Your task to perform on an android device: open app "Google Find My Device" Image 0: 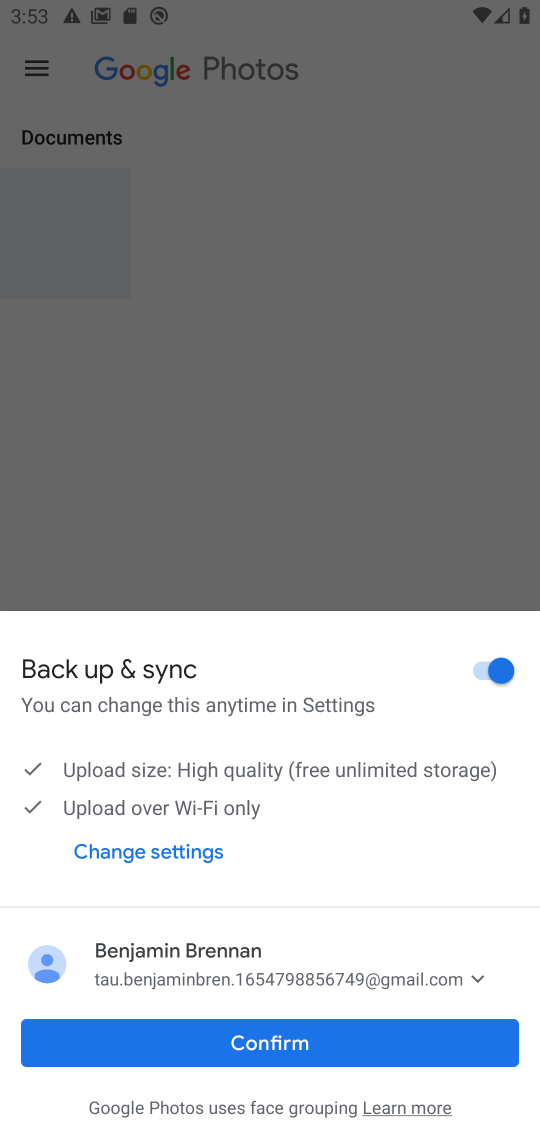
Step 0: press home button
Your task to perform on an android device: open app "Google Find My Device" Image 1: 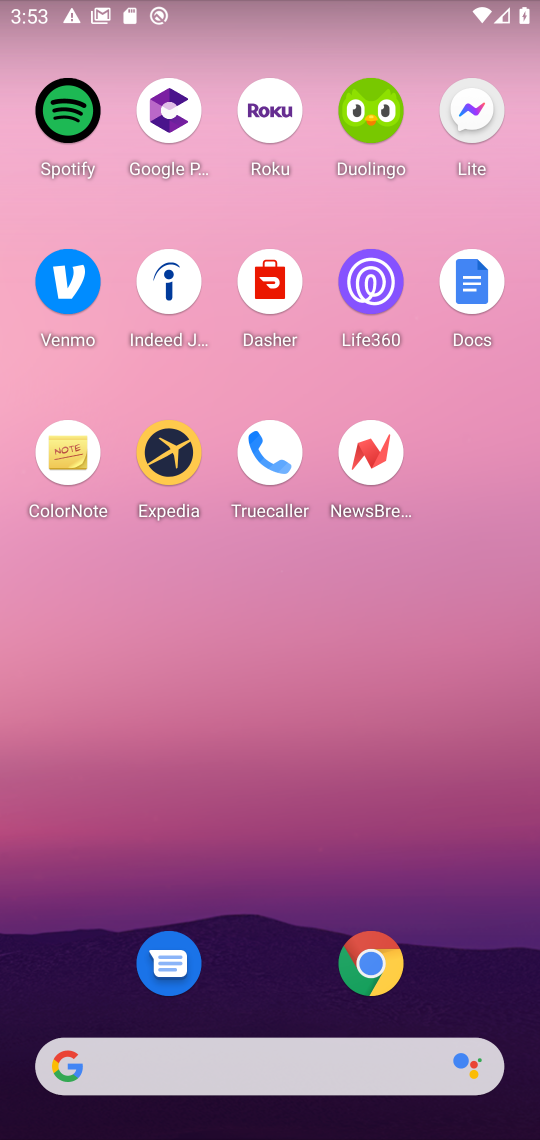
Step 1: drag from (269, 1005) to (16, 315)
Your task to perform on an android device: open app "Google Find My Device" Image 2: 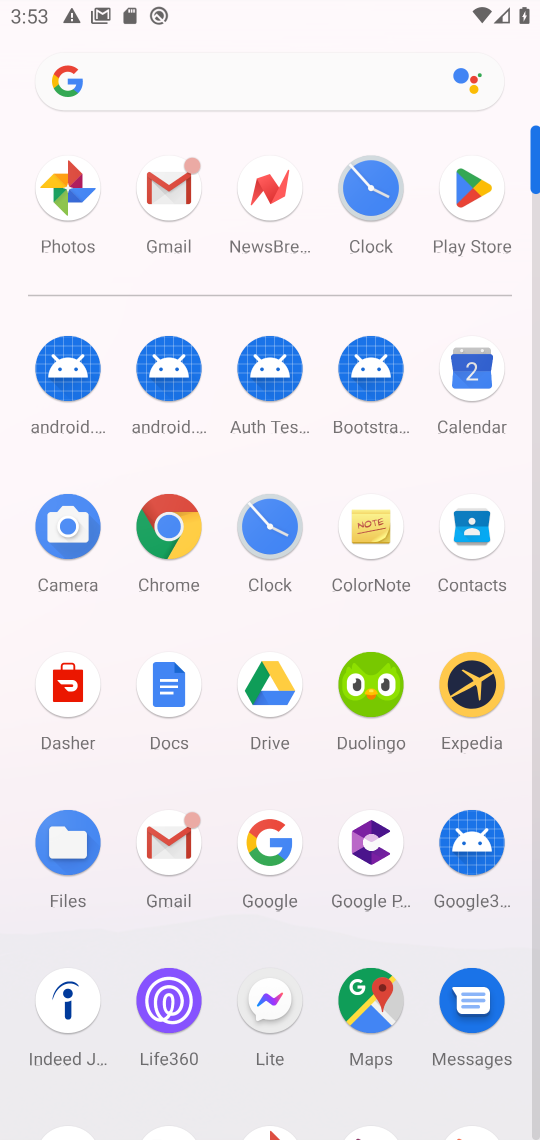
Step 2: click (469, 206)
Your task to perform on an android device: open app "Google Find My Device" Image 3: 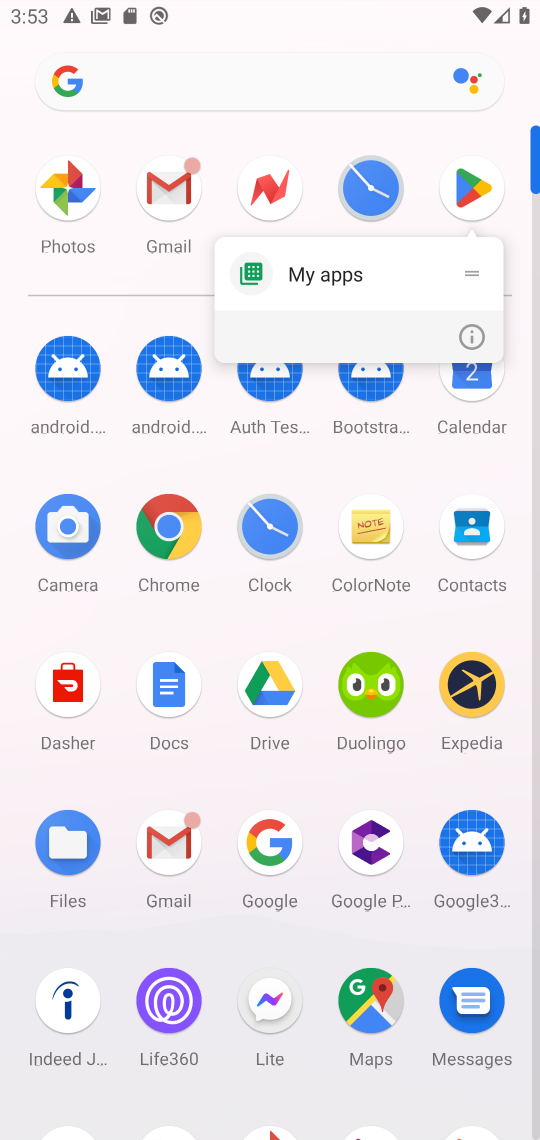
Step 3: click (466, 205)
Your task to perform on an android device: open app "Google Find My Device" Image 4: 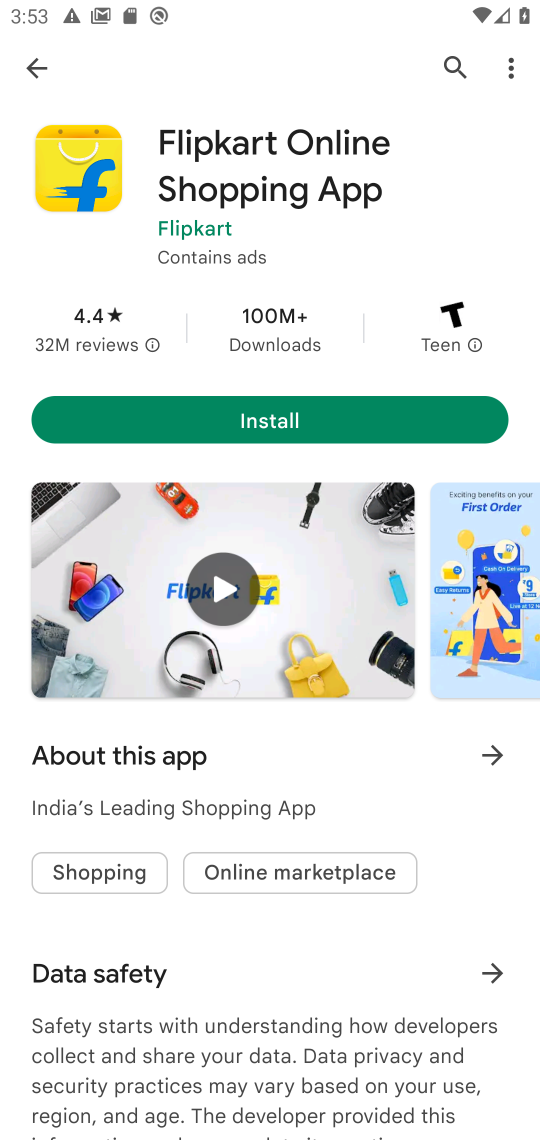
Step 4: click (28, 86)
Your task to perform on an android device: open app "Google Find My Device" Image 5: 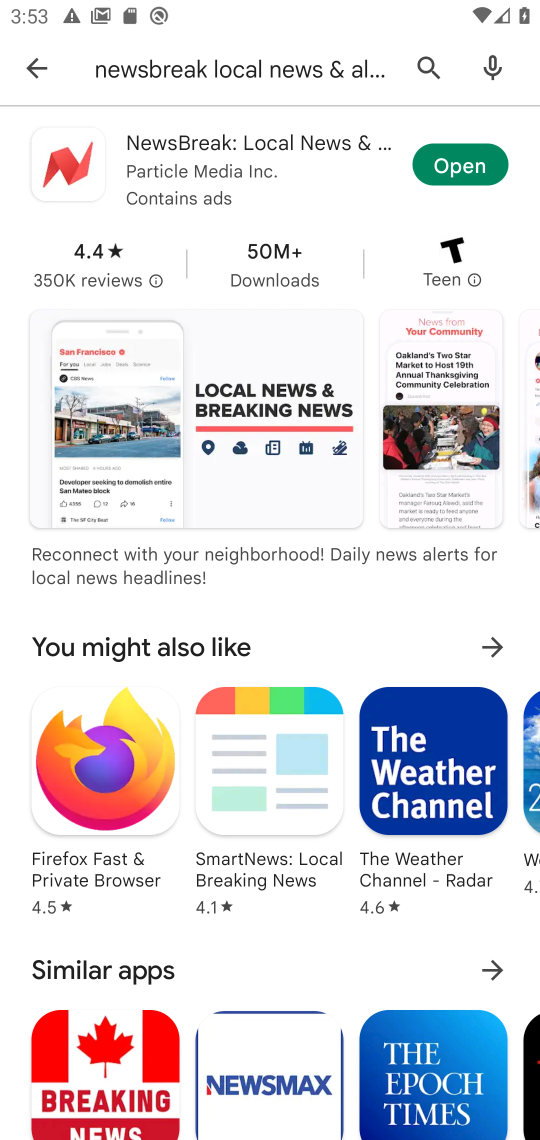
Step 5: click (425, 63)
Your task to perform on an android device: open app "Google Find My Device" Image 6: 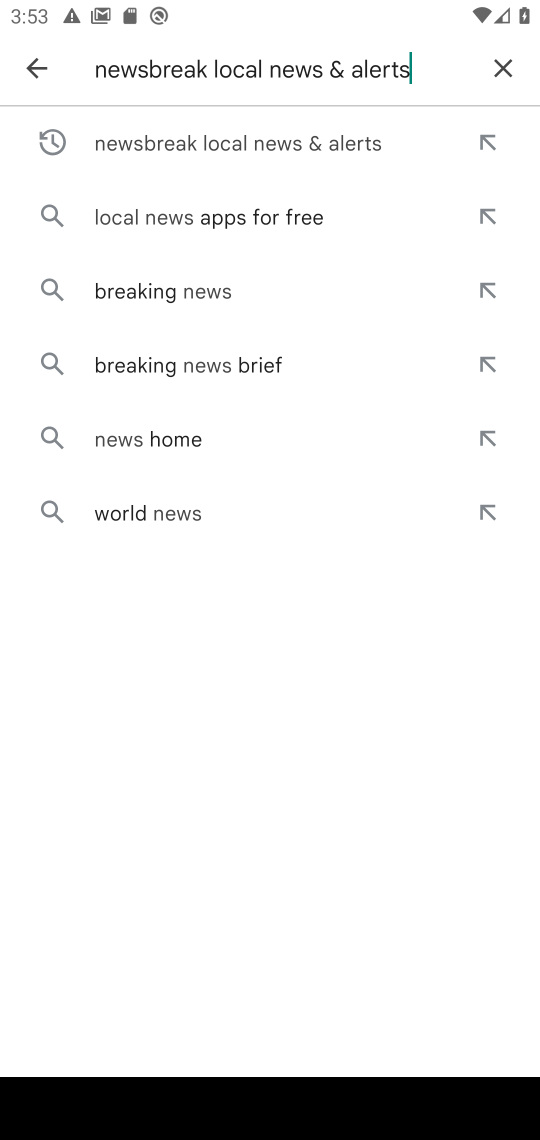
Step 6: click (495, 66)
Your task to perform on an android device: open app "Google Find My Device" Image 7: 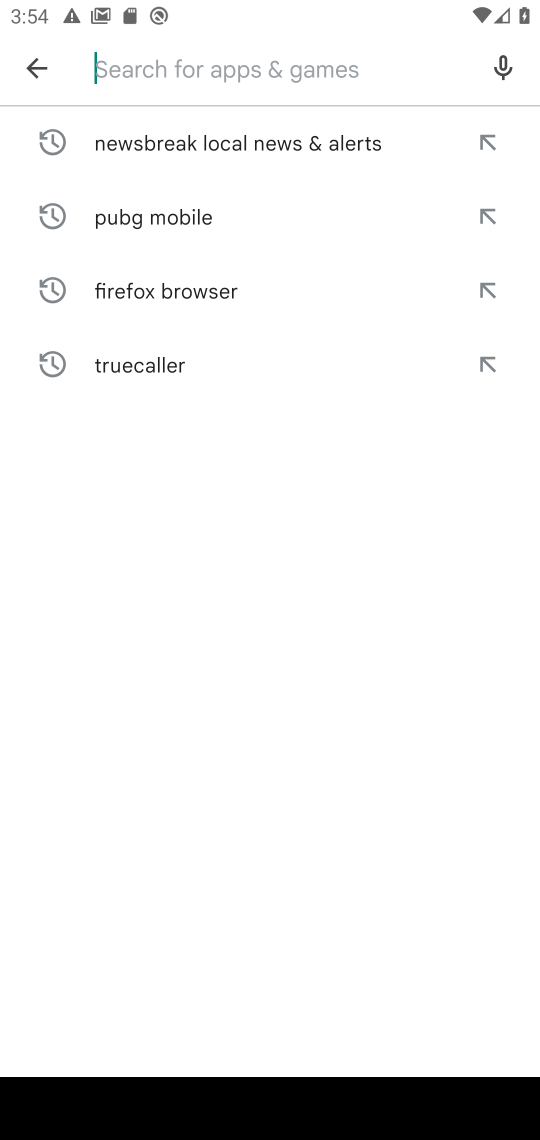
Step 7: type "Google Find My Device"
Your task to perform on an android device: open app "Google Find My Device" Image 8: 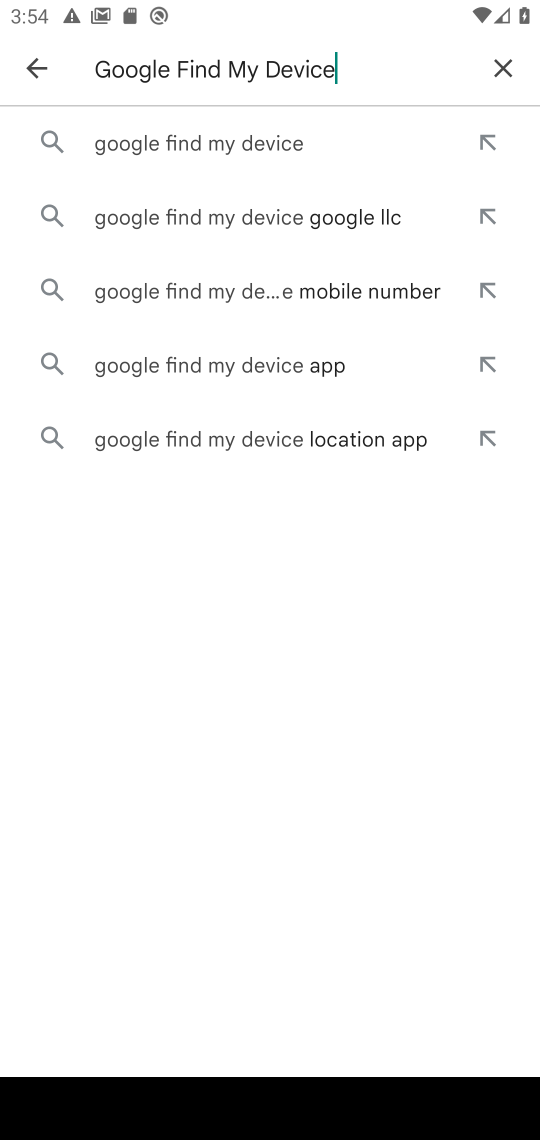
Step 8: click (159, 143)
Your task to perform on an android device: open app "Google Find My Device" Image 9: 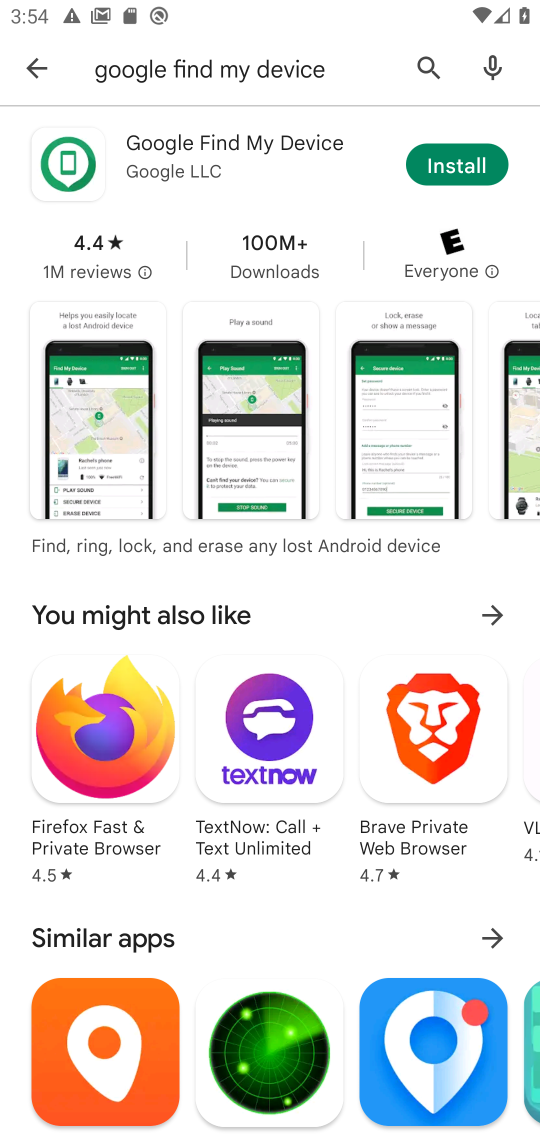
Step 9: click (464, 164)
Your task to perform on an android device: open app "Google Find My Device" Image 10: 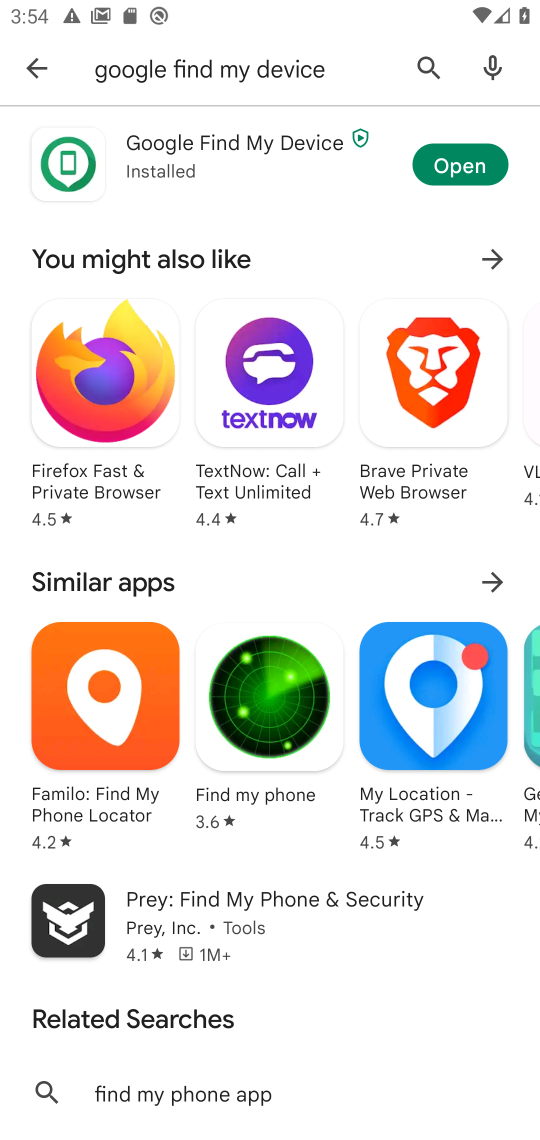
Step 10: click (468, 155)
Your task to perform on an android device: open app "Google Find My Device" Image 11: 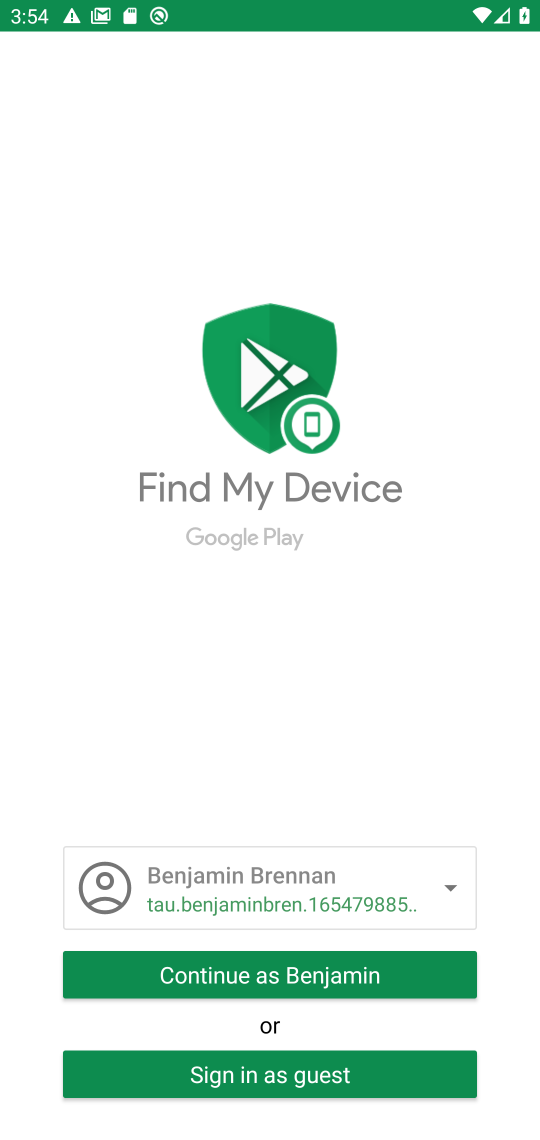
Step 11: task complete